Your task to perform on an android device: change your default location settings in chrome Image 0: 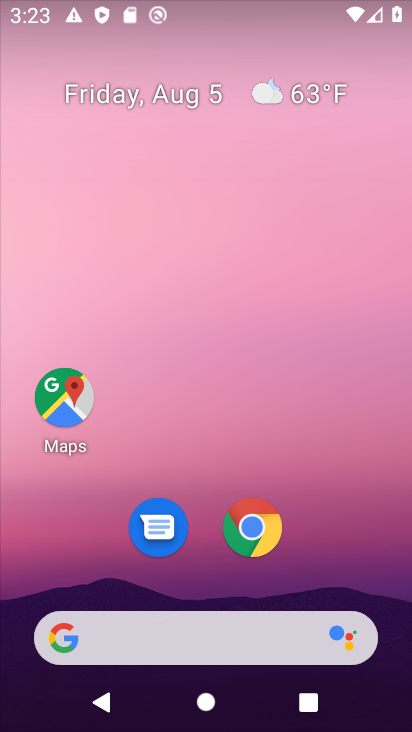
Step 0: drag from (206, 335) to (205, 72)
Your task to perform on an android device: change your default location settings in chrome Image 1: 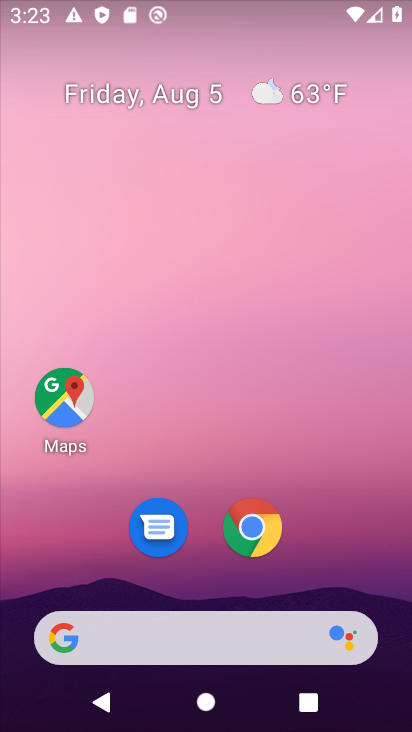
Step 1: drag from (206, 600) to (192, 88)
Your task to perform on an android device: change your default location settings in chrome Image 2: 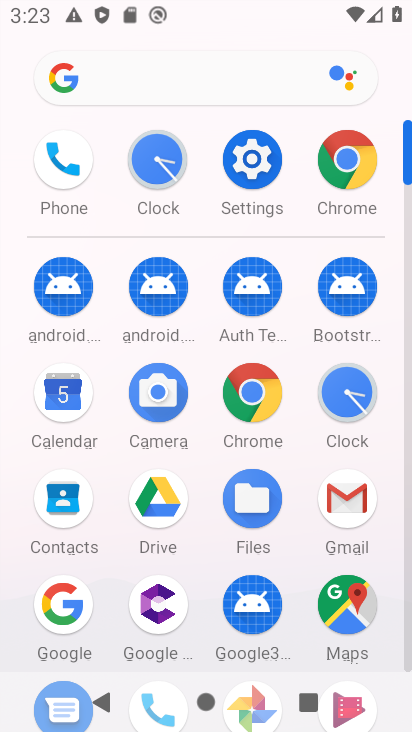
Step 2: click (263, 397)
Your task to perform on an android device: change your default location settings in chrome Image 3: 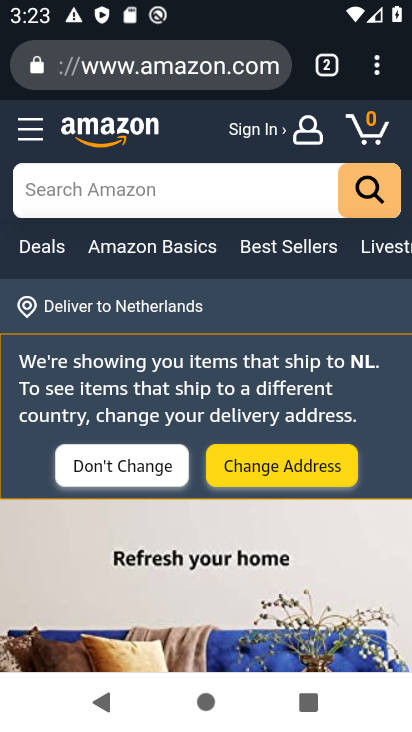
Step 3: click (379, 75)
Your task to perform on an android device: change your default location settings in chrome Image 4: 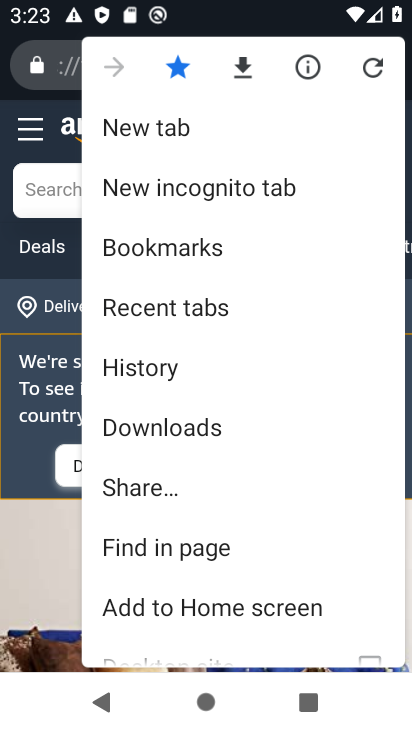
Step 4: drag from (210, 608) to (200, 275)
Your task to perform on an android device: change your default location settings in chrome Image 5: 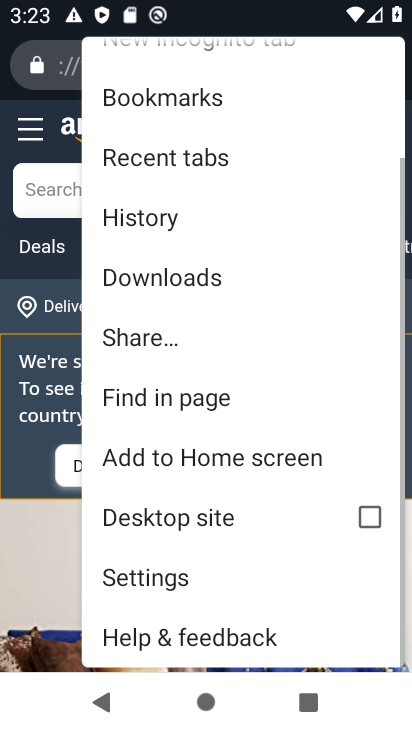
Step 5: click (147, 578)
Your task to perform on an android device: change your default location settings in chrome Image 6: 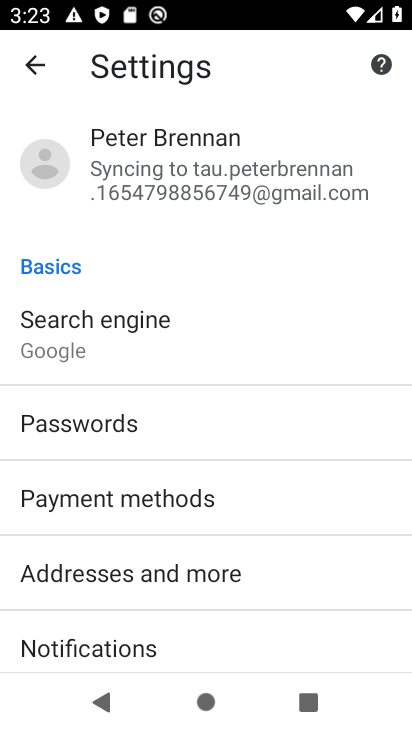
Step 6: drag from (144, 589) to (135, 384)
Your task to perform on an android device: change your default location settings in chrome Image 7: 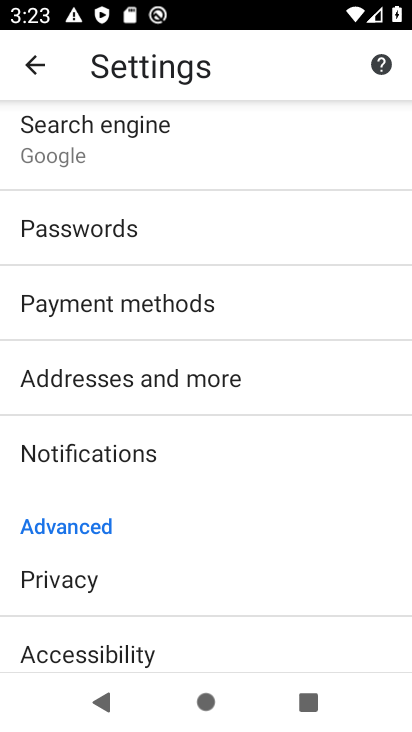
Step 7: drag from (137, 628) to (139, 342)
Your task to perform on an android device: change your default location settings in chrome Image 8: 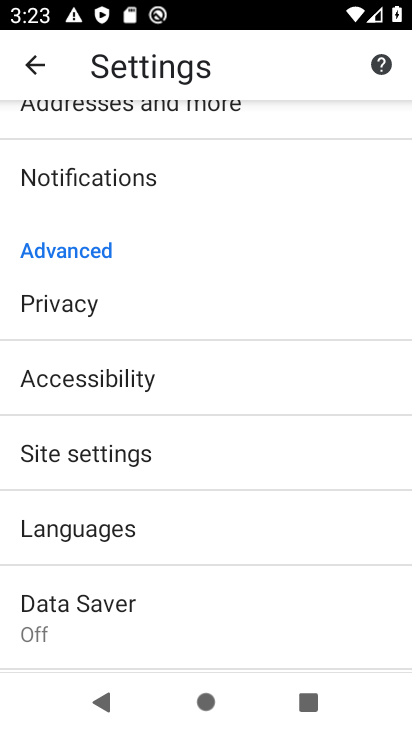
Step 8: click (106, 455)
Your task to perform on an android device: change your default location settings in chrome Image 9: 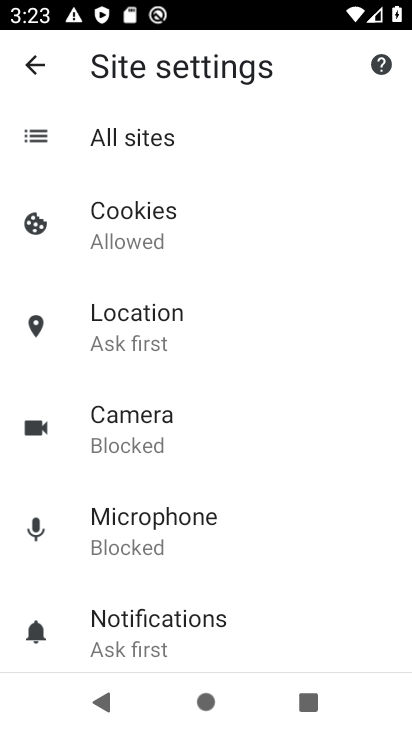
Step 9: click (143, 325)
Your task to perform on an android device: change your default location settings in chrome Image 10: 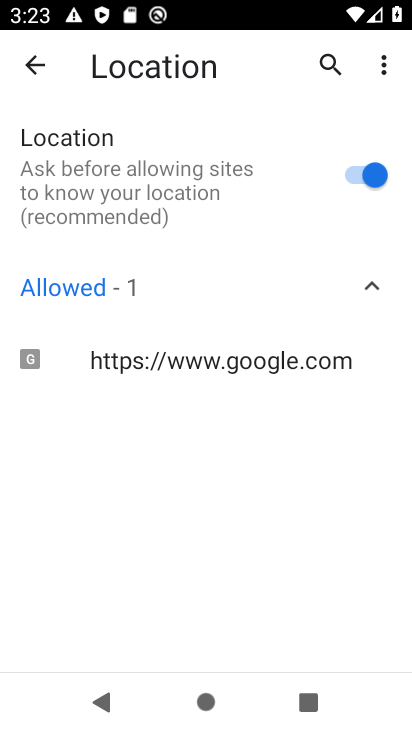
Step 10: task complete